Your task to perform on an android device: toggle wifi Image 0: 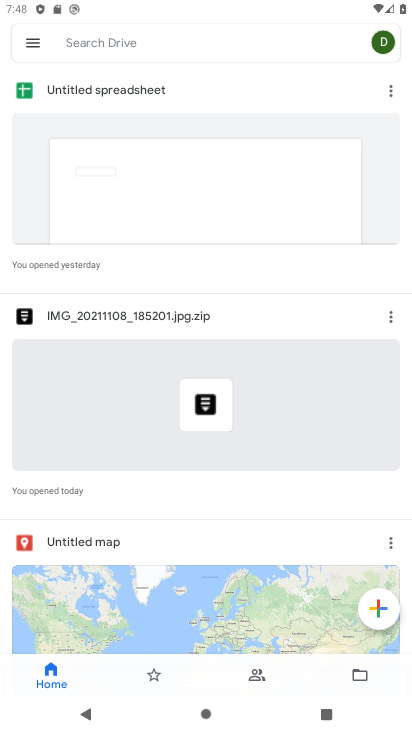
Step 0: press home button
Your task to perform on an android device: toggle wifi Image 1: 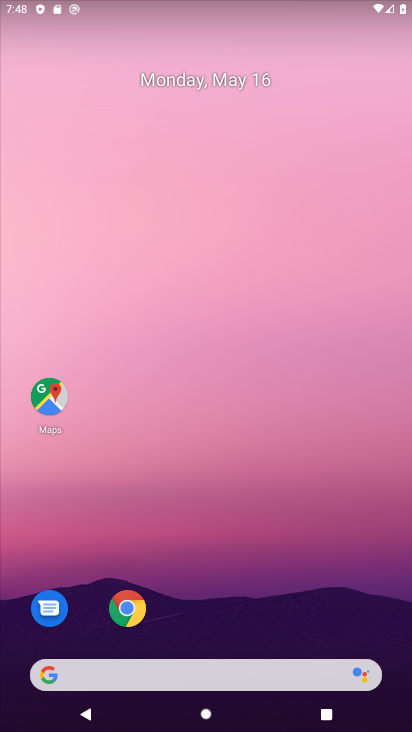
Step 1: drag from (242, 568) to (188, 173)
Your task to perform on an android device: toggle wifi Image 2: 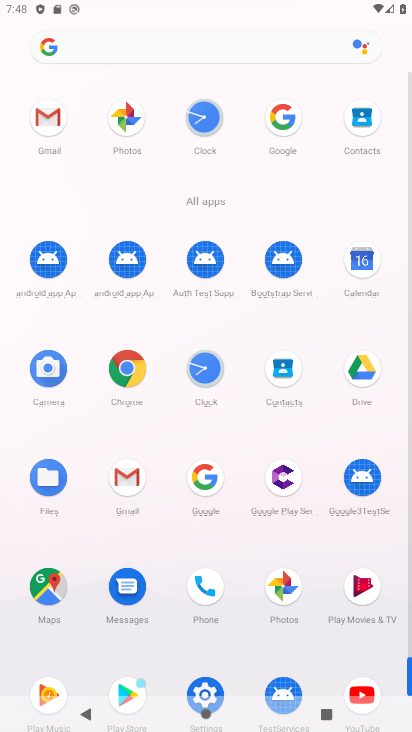
Step 2: drag from (168, 558) to (180, 386)
Your task to perform on an android device: toggle wifi Image 3: 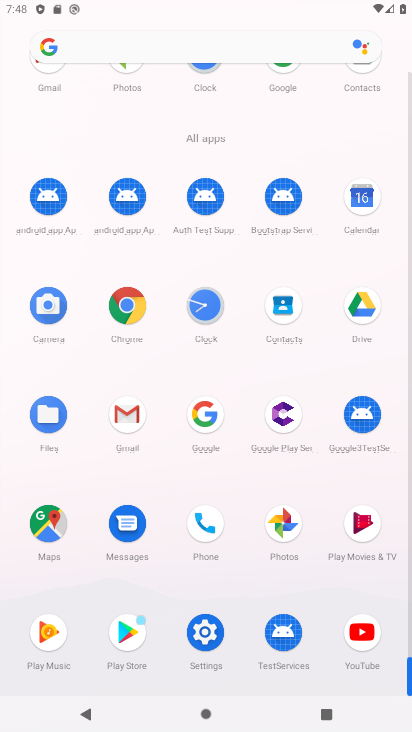
Step 3: click (204, 634)
Your task to perform on an android device: toggle wifi Image 4: 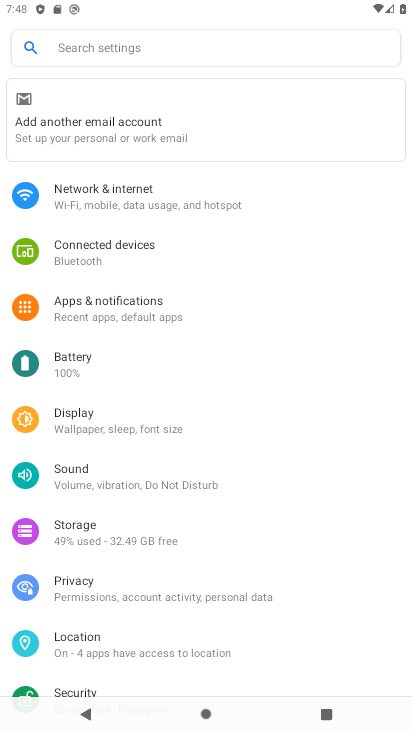
Step 4: click (129, 191)
Your task to perform on an android device: toggle wifi Image 5: 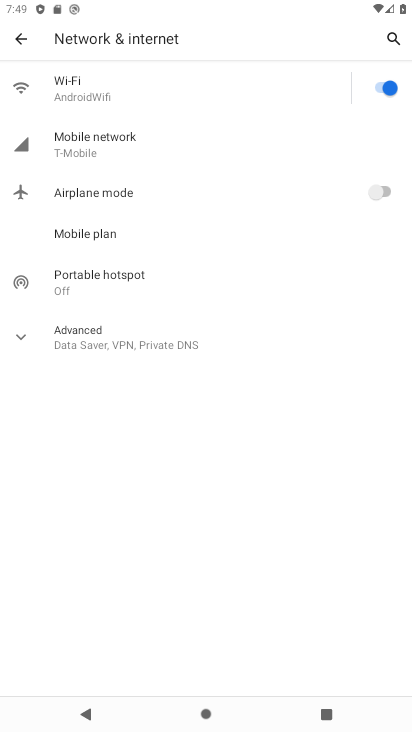
Step 5: click (392, 90)
Your task to perform on an android device: toggle wifi Image 6: 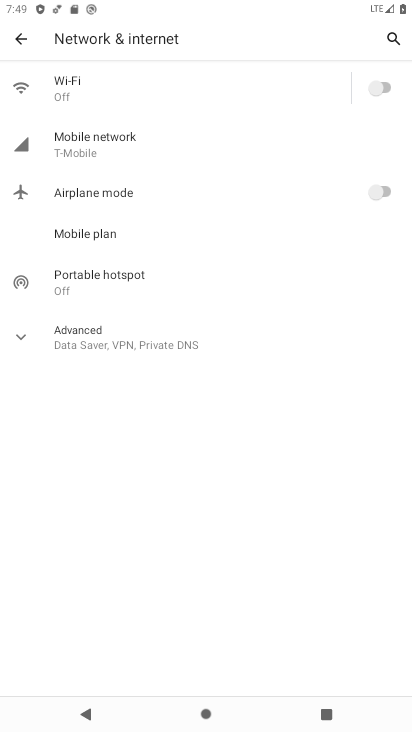
Step 6: task complete